Your task to perform on an android device: Do I have any events this weekend? Image 0: 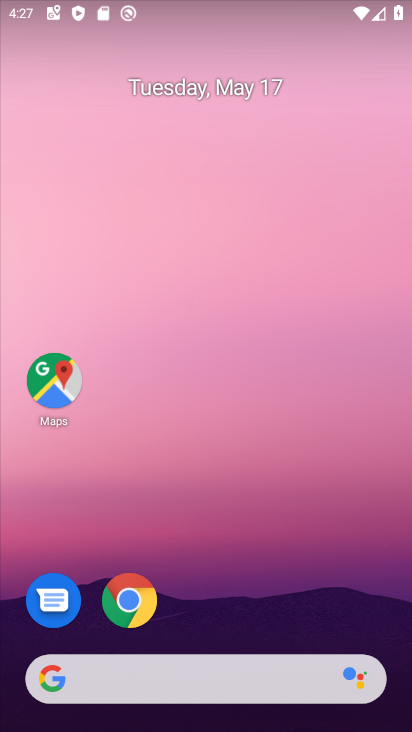
Step 0: drag from (212, 539) to (308, 0)
Your task to perform on an android device: Do I have any events this weekend? Image 1: 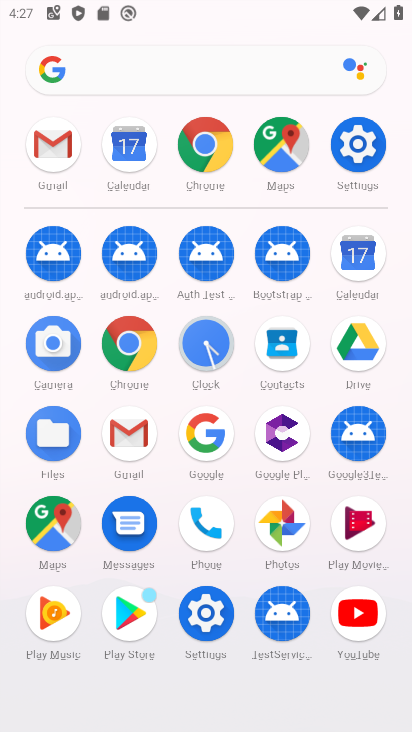
Step 1: click (360, 268)
Your task to perform on an android device: Do I have any events this weekend? Image 2: 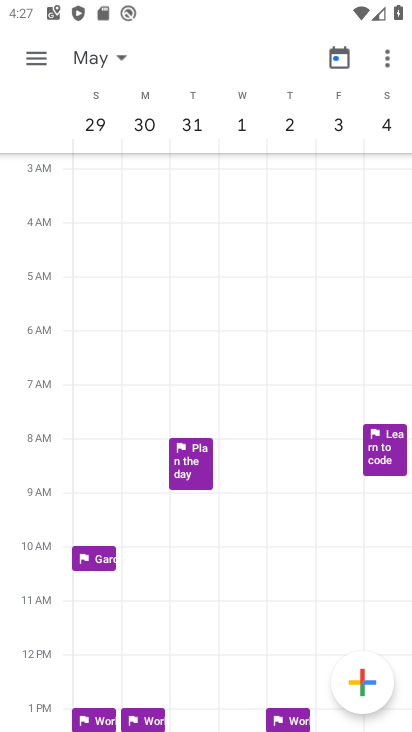
Step 2: drag from (102, 131) to (405, 165)
Your task to perform on an android device: Do I have any events this weekend? Image 3: 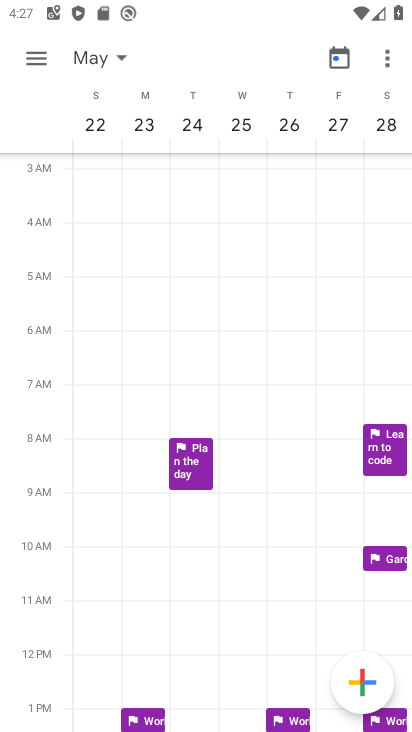
Step 3: drag from (112, 130) to (410, 148)
Your task to perform on an android device: Do I have any events this weekend? Image 4: 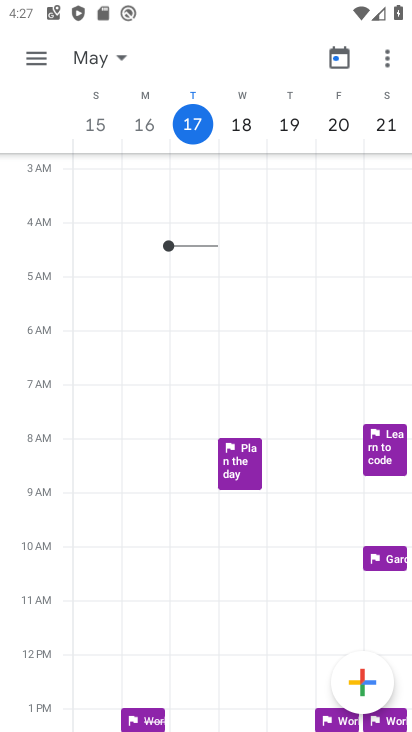
Step 4: click (35, 69)
Your task to perform on an android device: Do I have any events this weekend? Image 5: 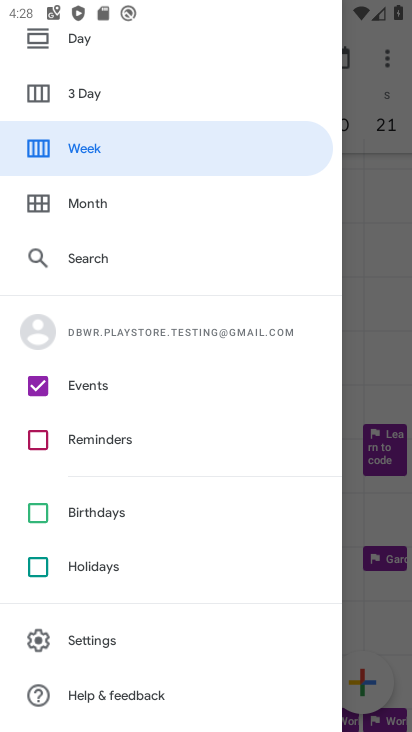
Step 5: click (124, 151)
Your task to perform on an android device: Do I have any events this weekend? Image 6: 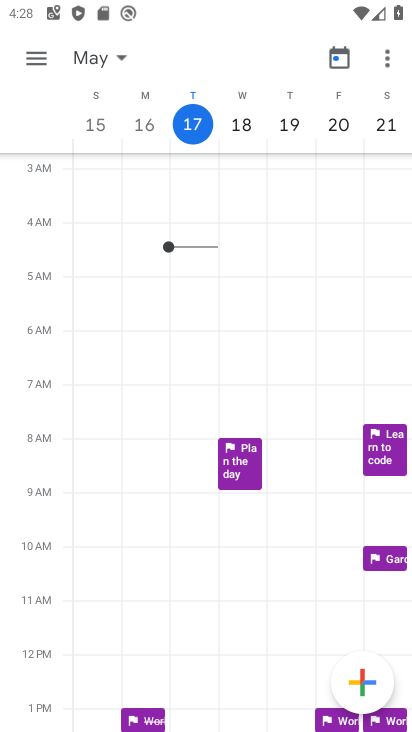
Step 6: task complete